Your task to perform on an android device: Open Android settings Image 0: 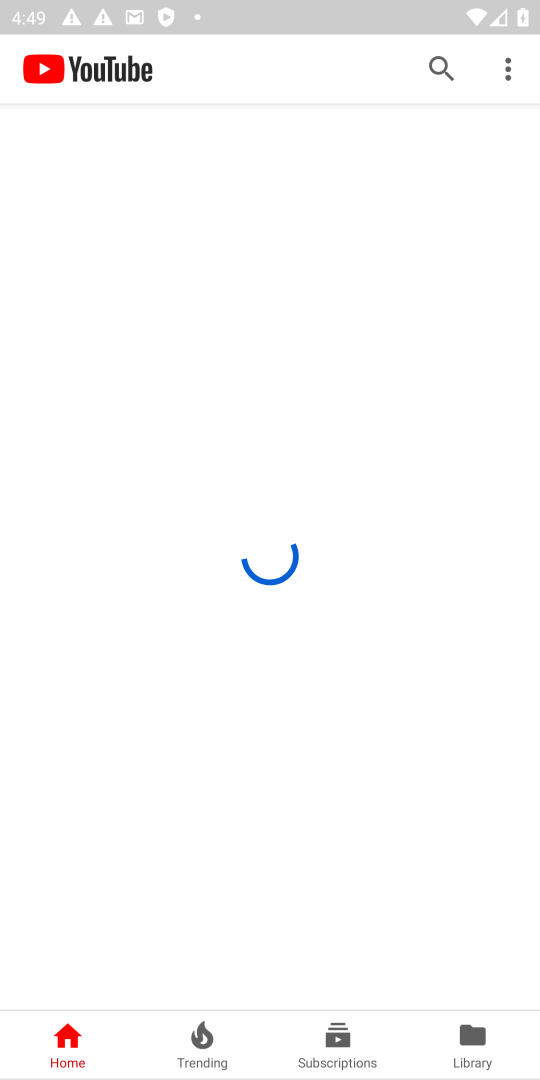
Step 0: press home button
Your task to perform on an android device: Open Android settings Image 1: 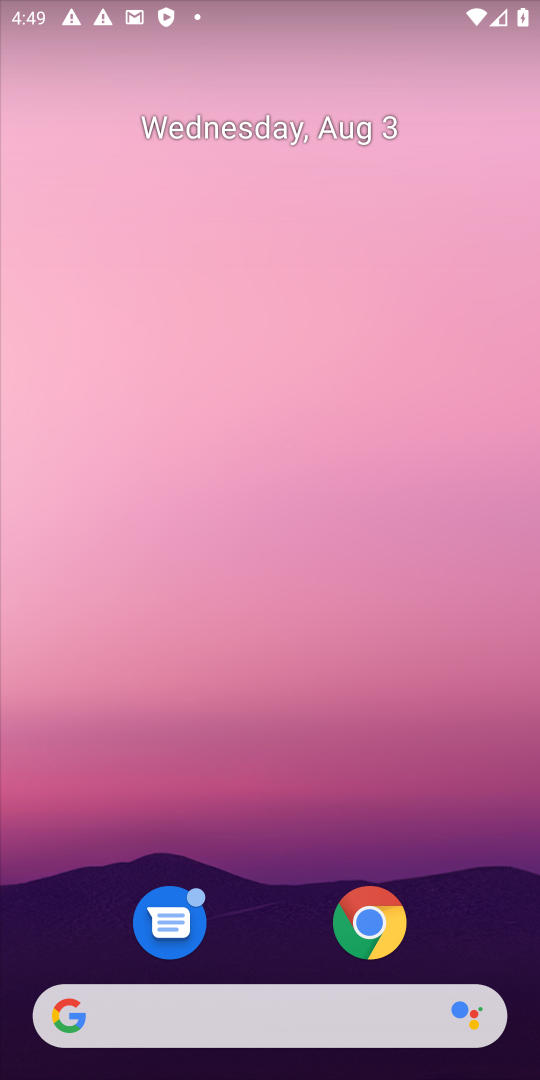
Step 1: drag from (464, 901) to (321, 241)
Your task to perform on an android device: Open Android settings Image 2: 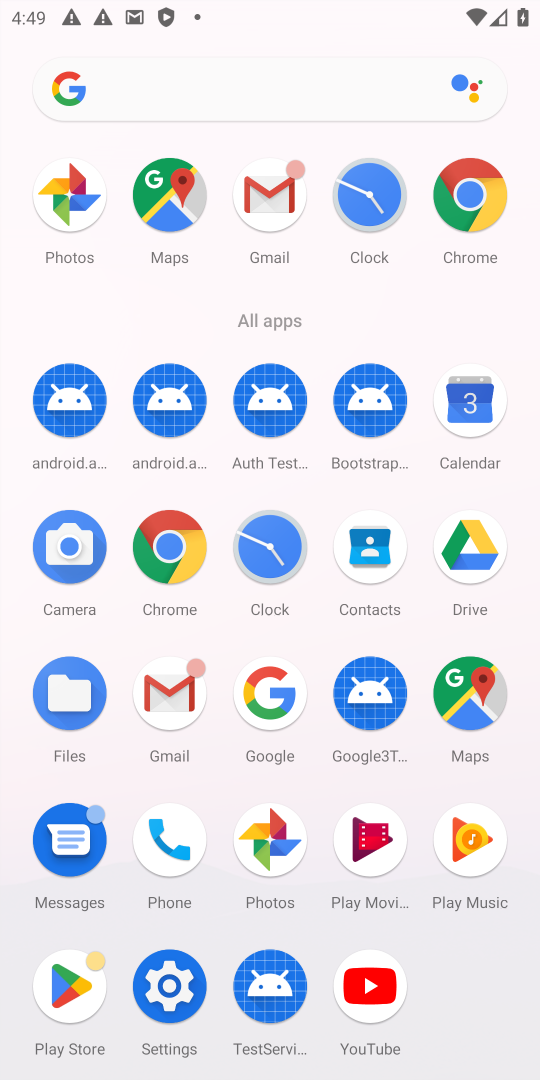
Step 2: click (172, 976)
Your task to perform on an android device: Open Android settings Image 3: 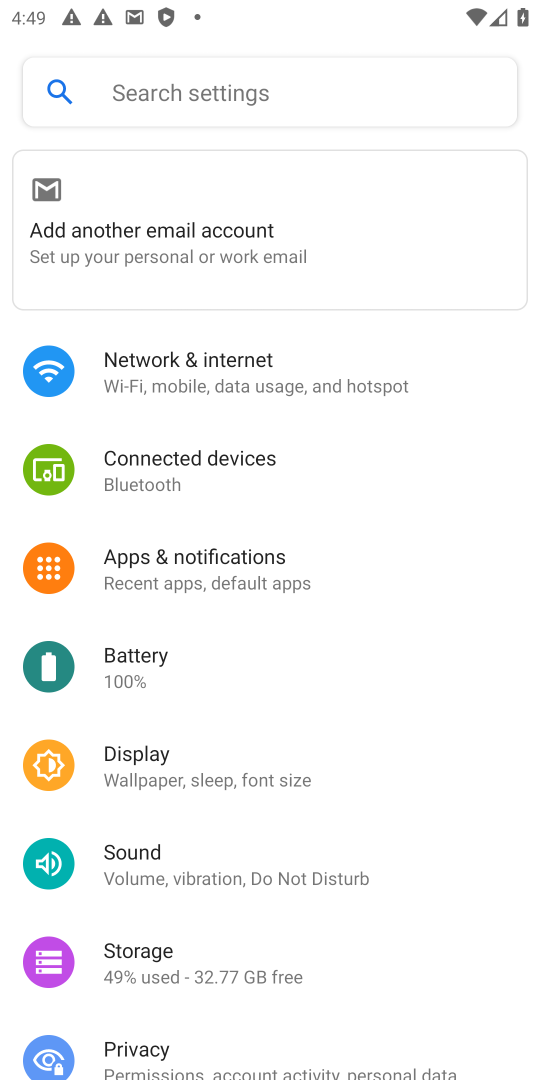
Step 3: task complete